Your task to perform on an android device: open app "Yahoo Mail" (install if not already installed) Image 0: 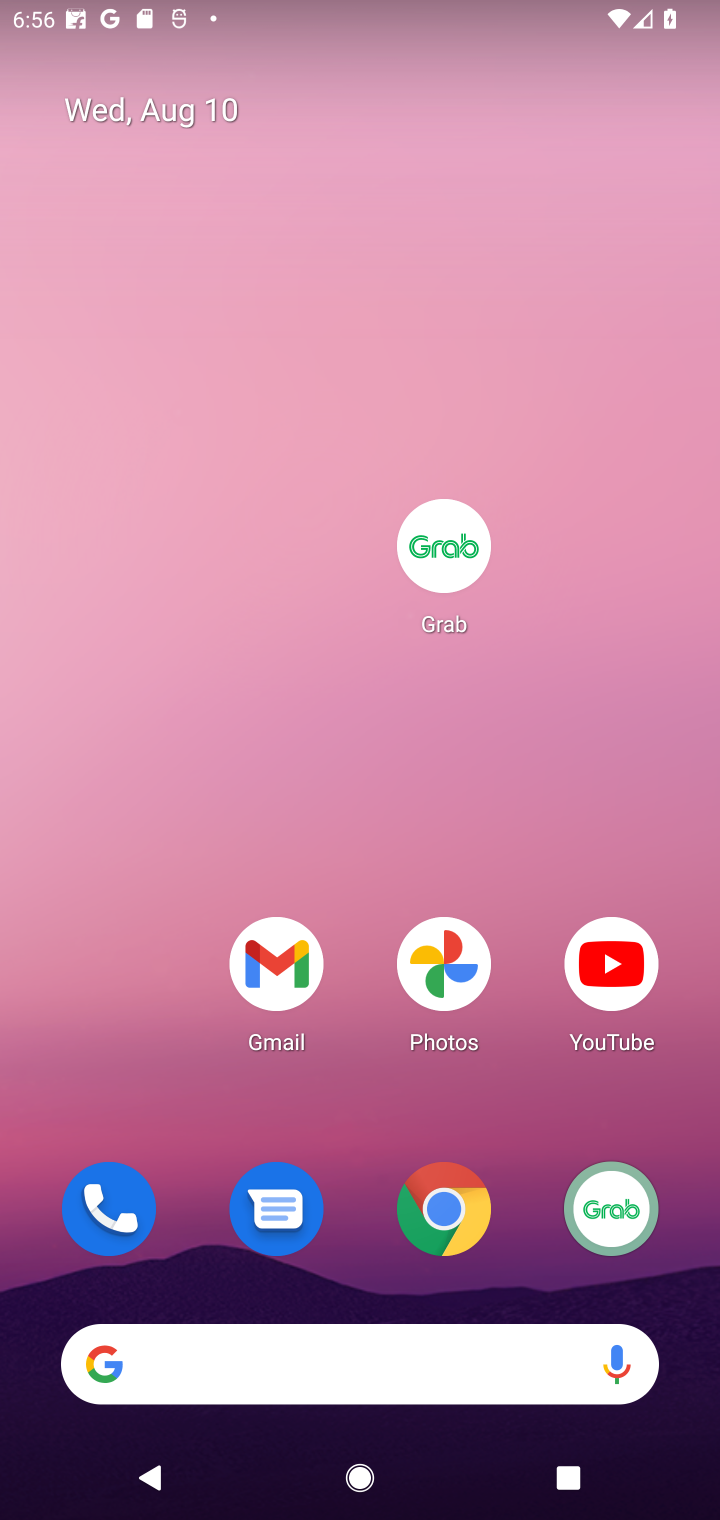
Step 0: drag from (355, 1287) to (466, 172)
Your task to perform on an android device: open app "Yahoo Mail" (install if not already installed) Image 1: 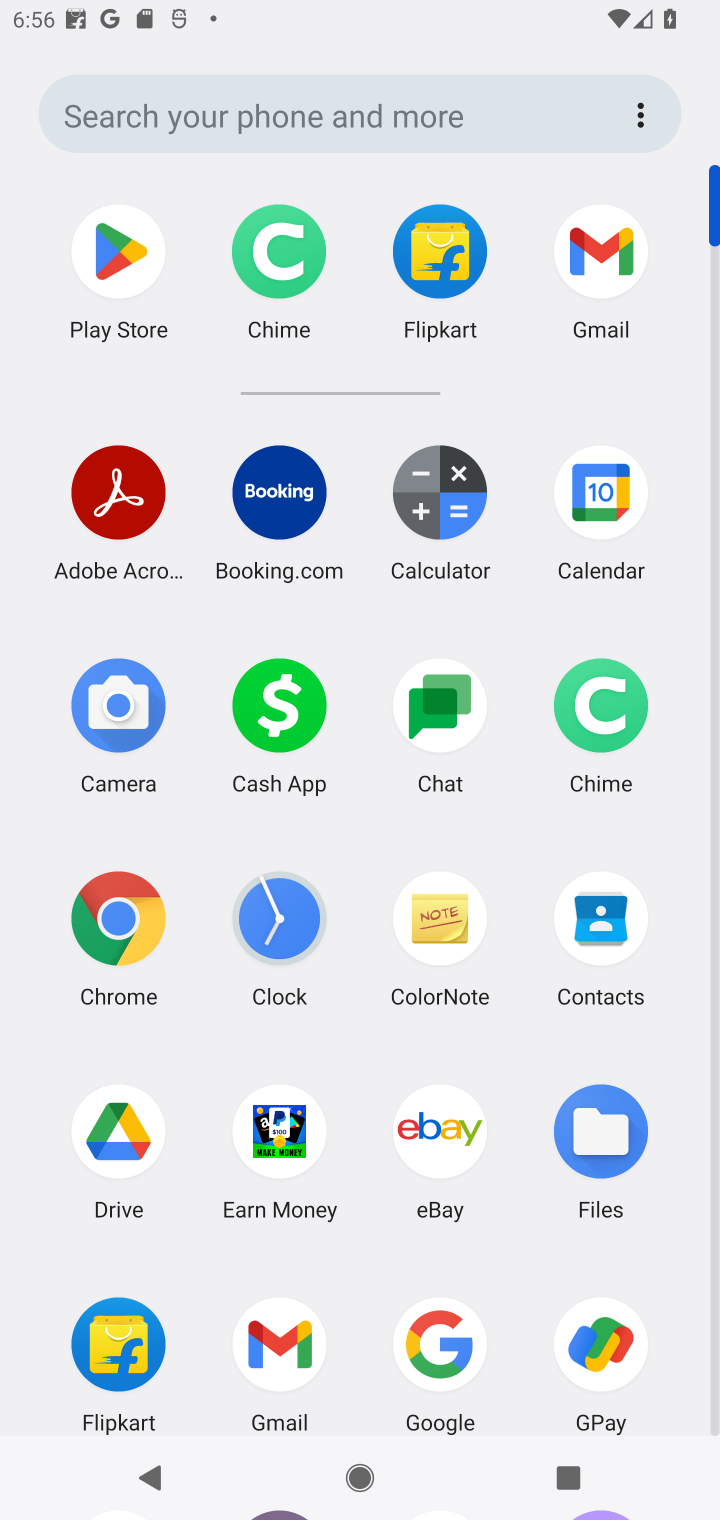
Step 1: click (117, 293)
Your task to perform on an android device: open app "Yahoo Mail" (install if not already installed) Image 2: 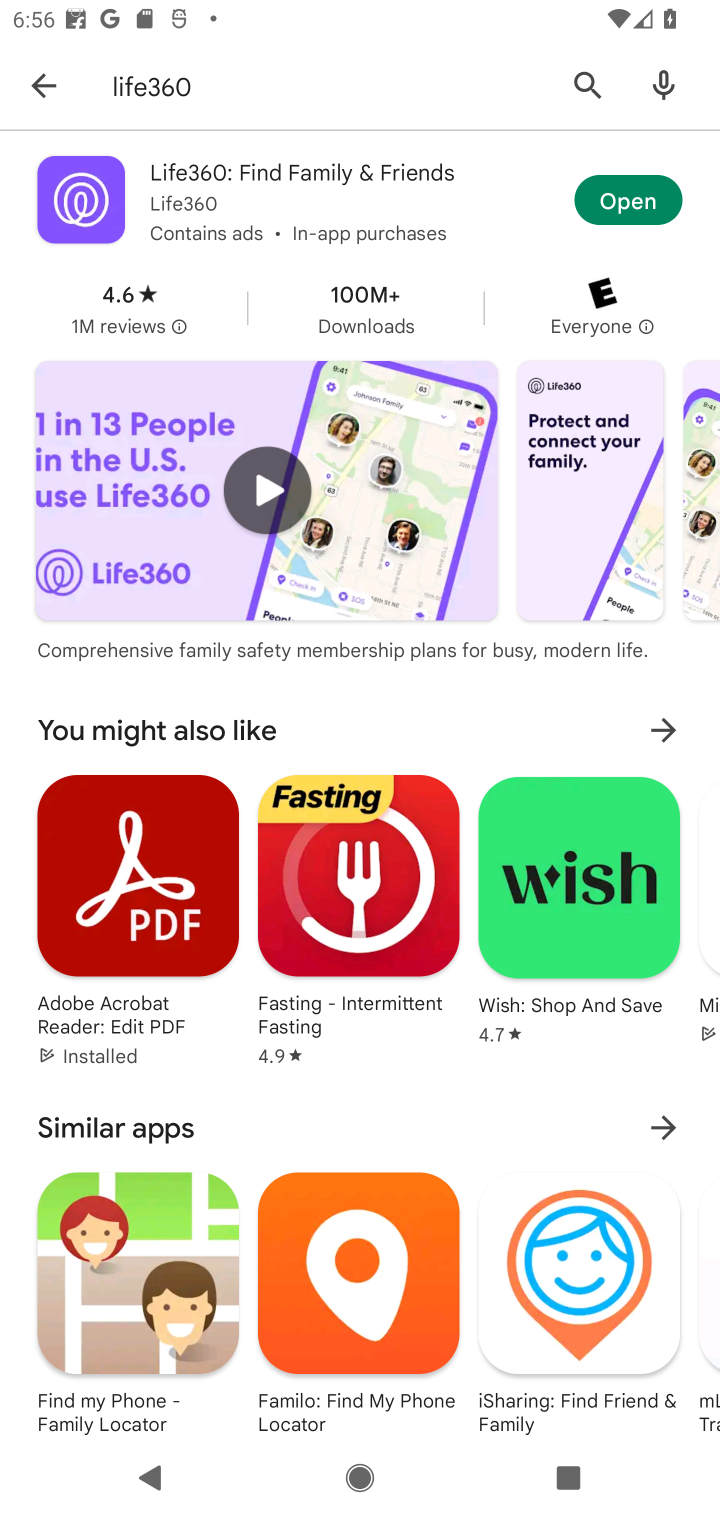
Step 2: click (600, 89)
Your task to perform on an android device: open app "Yahoo Mail" (install if not already installed) Image 3: 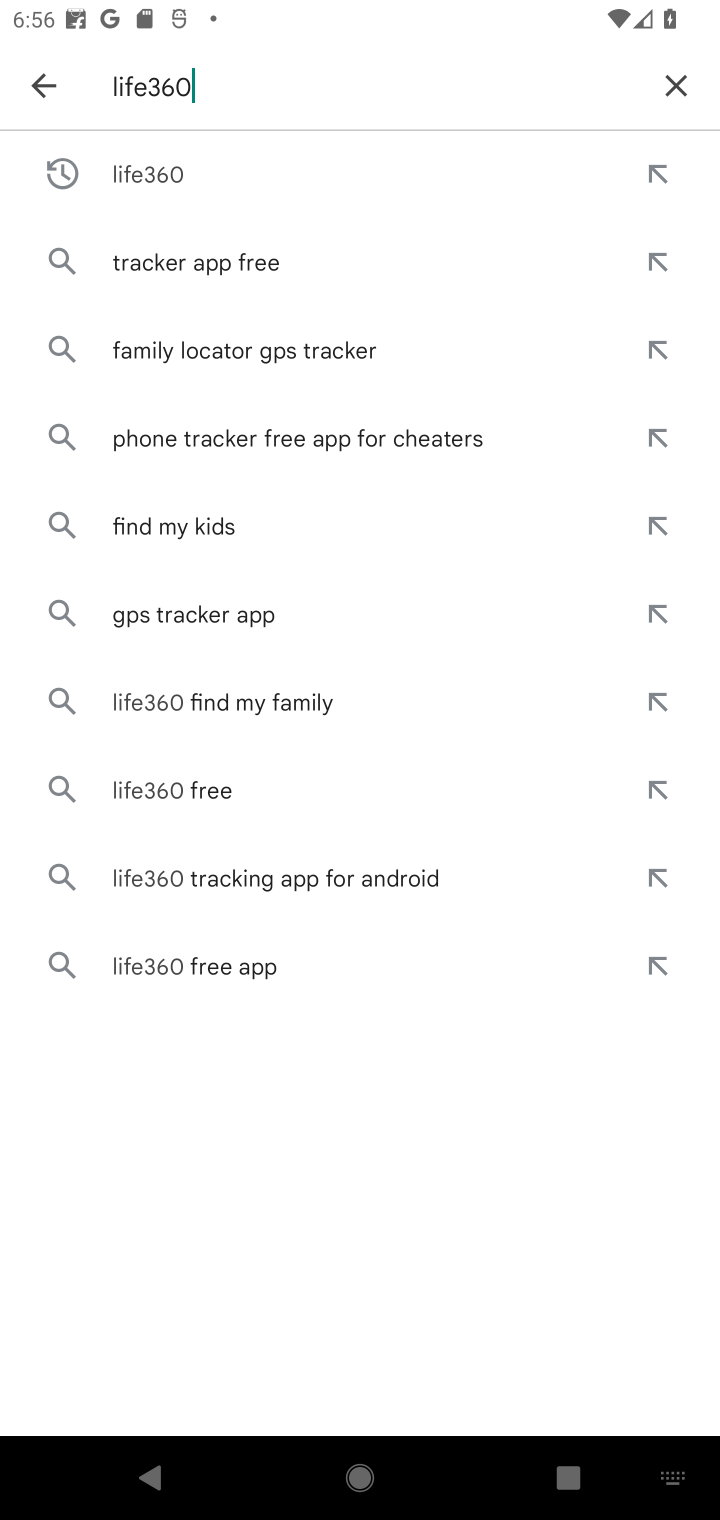
Step 3: click (670, 90)
Your task to perform on an android device: open app "Yahoo Mail" (install if not already installed) Image 4: 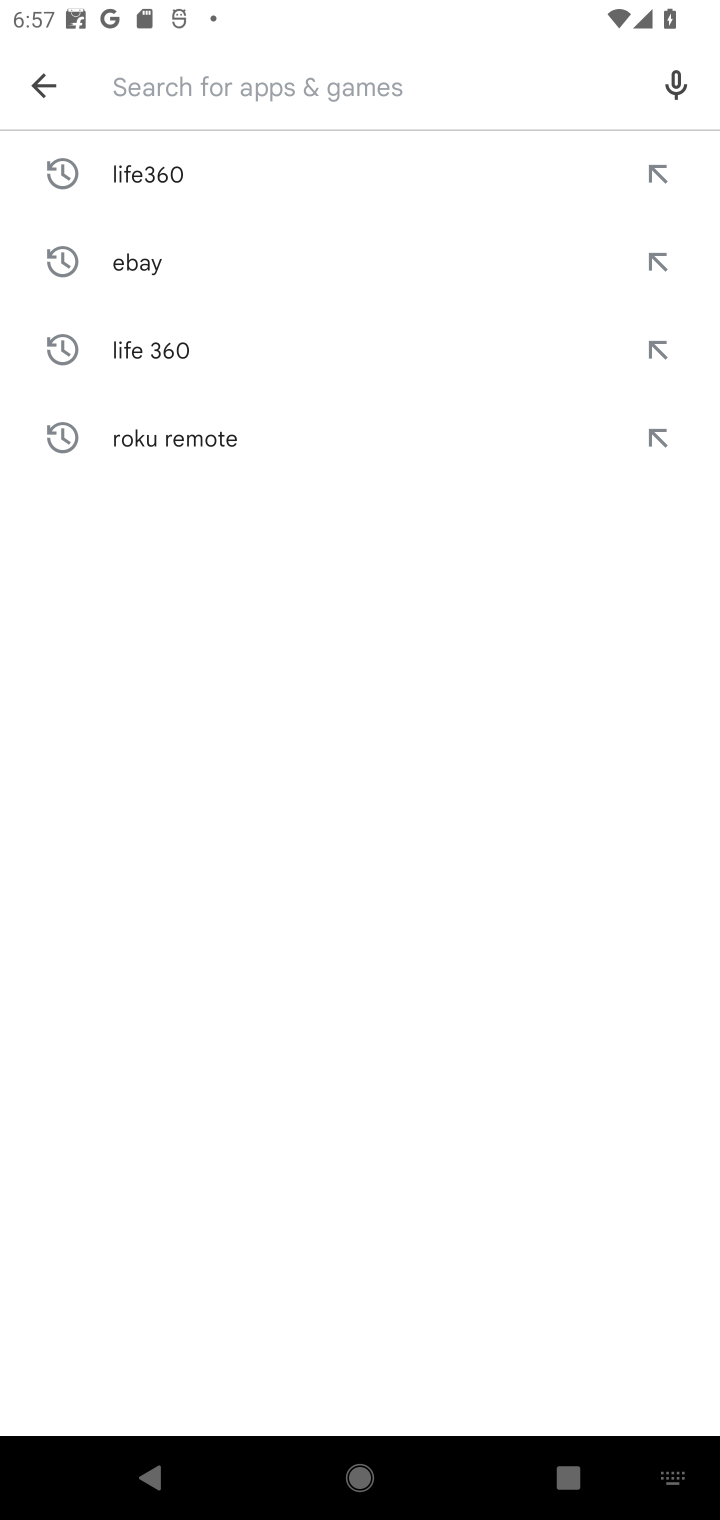
Step 4: type "yahoomail.com"
Your task to perform on an android device: open app "Yahoo Mail" (install if not already installed) Image 5: 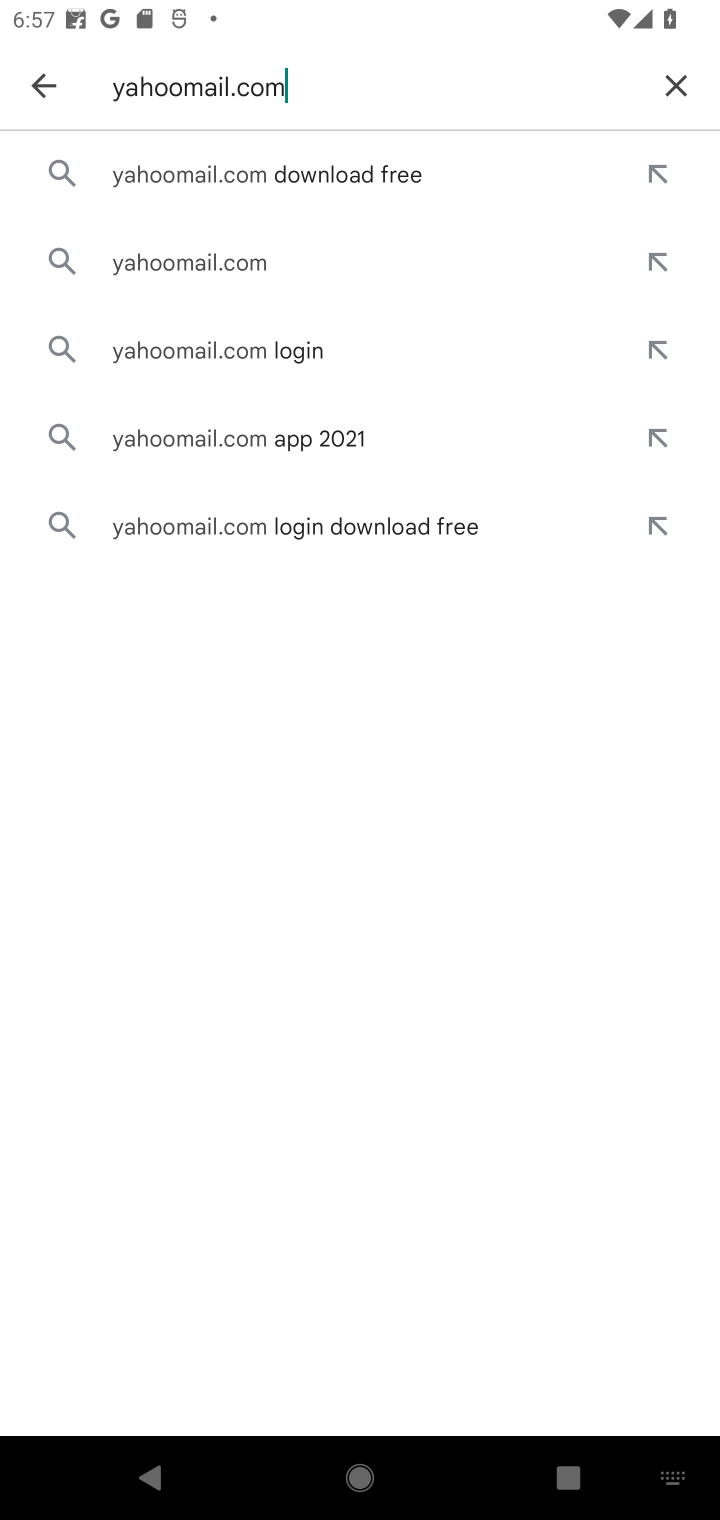
Step 5: click (303, 159)
Your task to perform on an android device: open app "Yahoo Mail" (install if not already installed) Image 6: 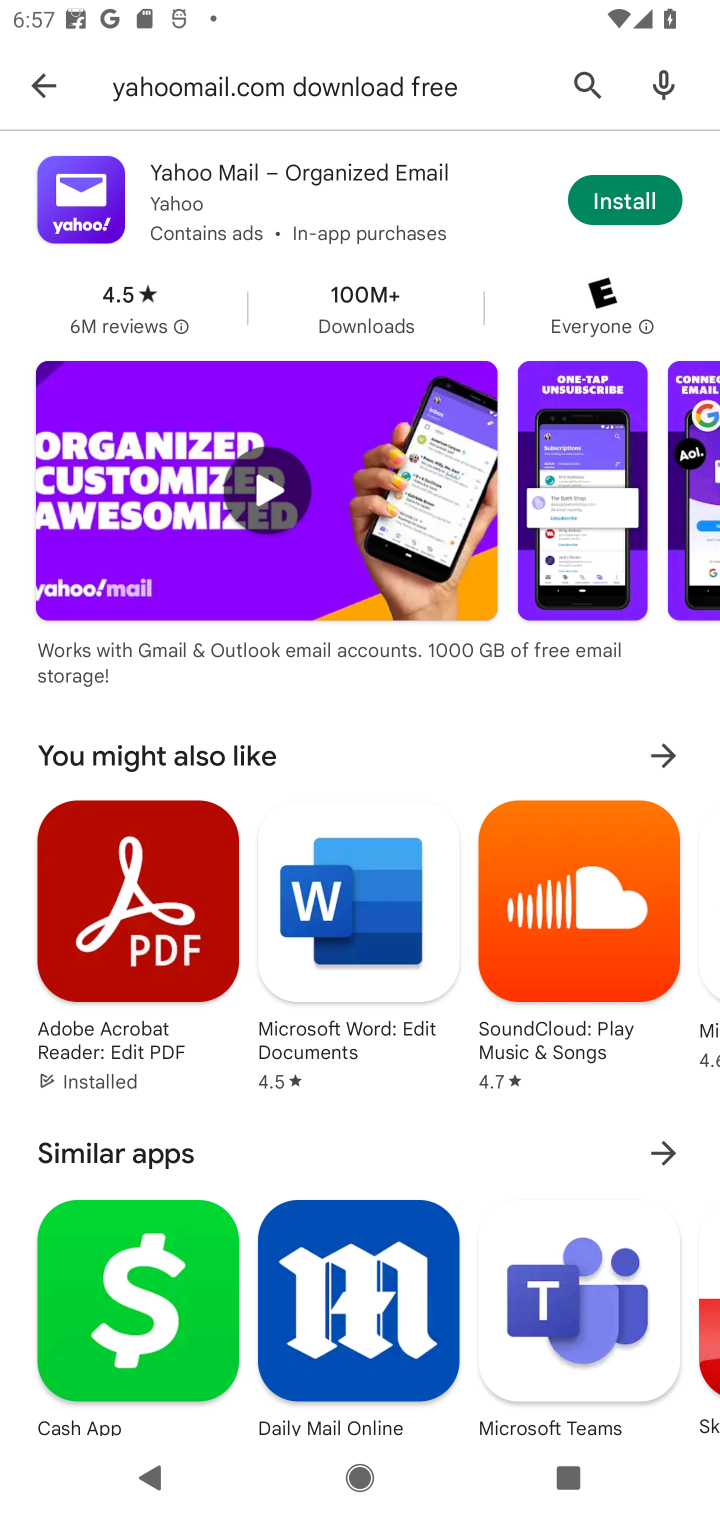
Step 6: click (607, 220)
Your task to perform on an android device: open app "Yahoo Mail" (install if not already installed) Image 7: 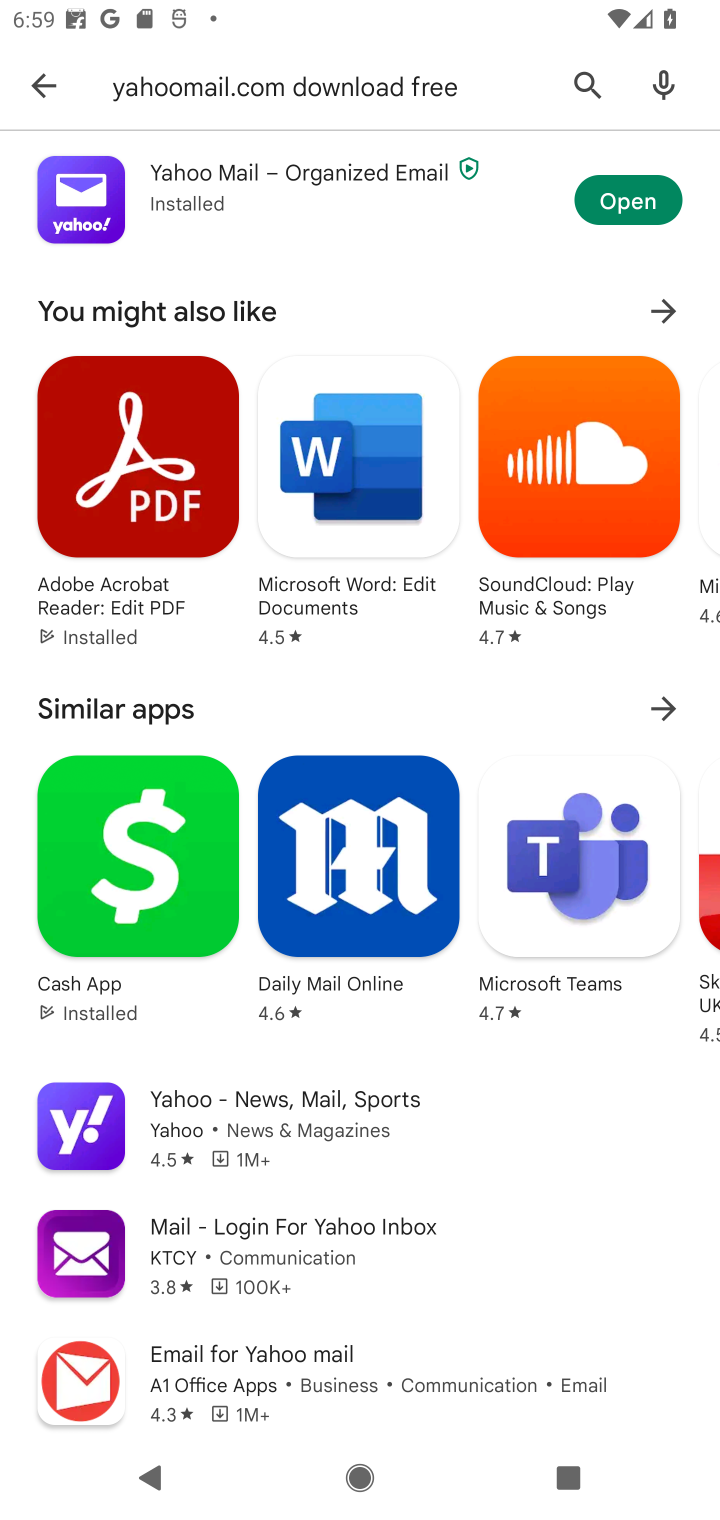
Step 7: click (409, 1512)
Your task to perform on an android device: open app "Yahoo Mail" (install if not already installed) Image 8: 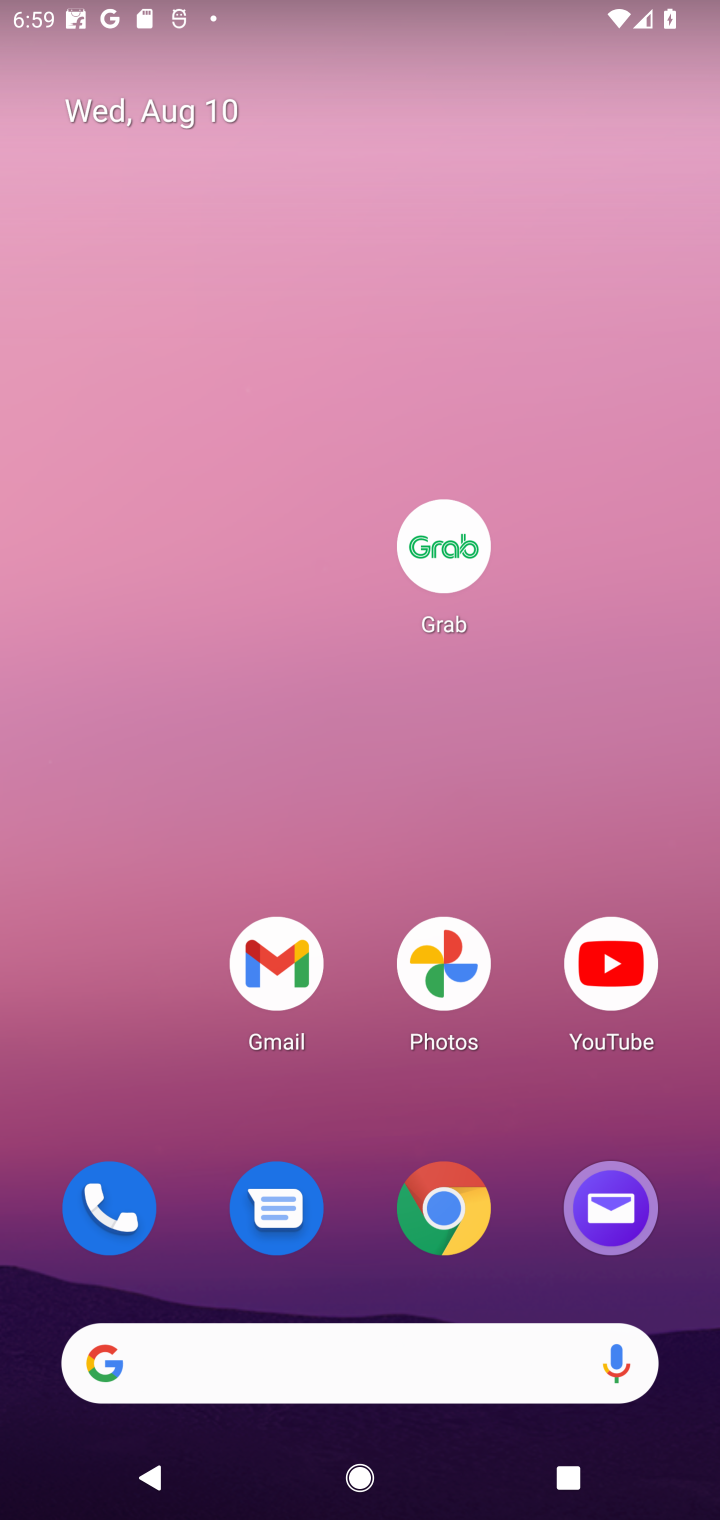
Step 8: click (592, 220)
Your task to perform on an android device: open app "Yahoo Mail" (install if not already installed) Image 9: 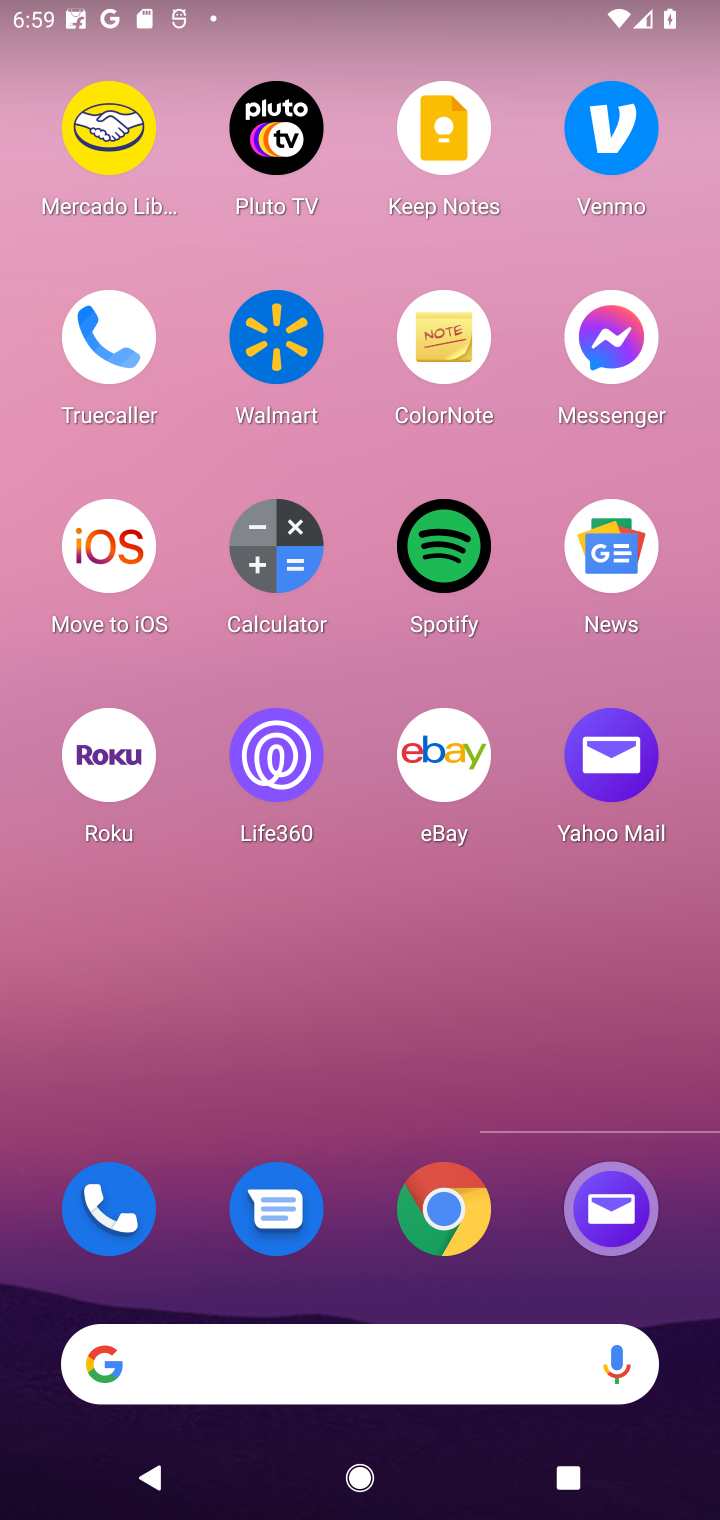
Step 9: task complete